Your task to perform on an android device: Search for sushi restaurants on Maps Image 0: 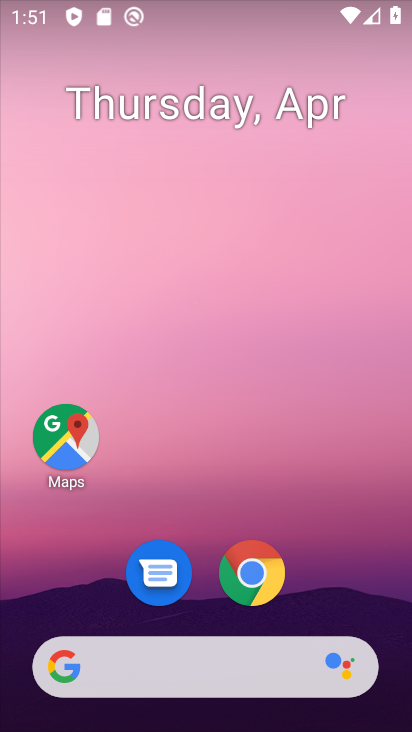
Step 0: drag from (325, 608) to (234, 8)
Your task to perform on an android device: Search for sushi restaurants on Maps Image 1: 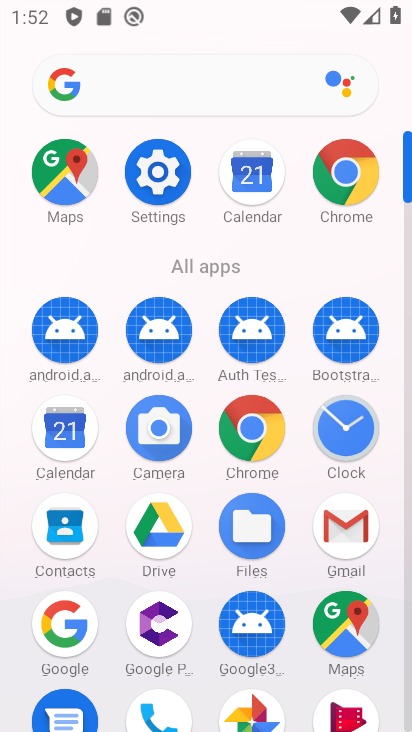
Step 1: click (354, 634)
Your task to perform on an android device: Search for sushi restaurants on Maps Image 2: 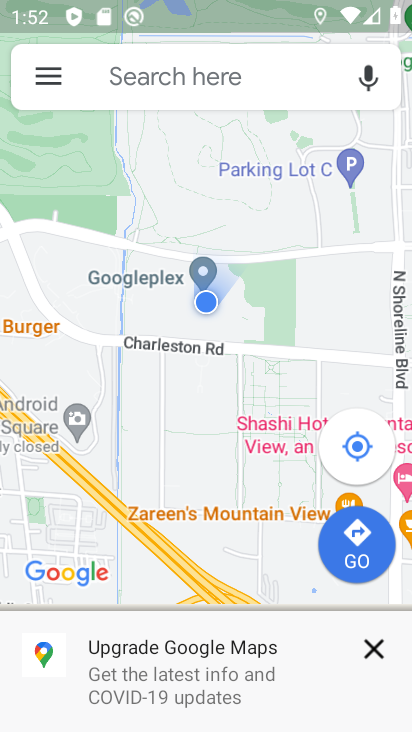
Step 2: click (156, 71)
Your task to perform on an android device: Search for sushi restaurants on Maps Image 3: 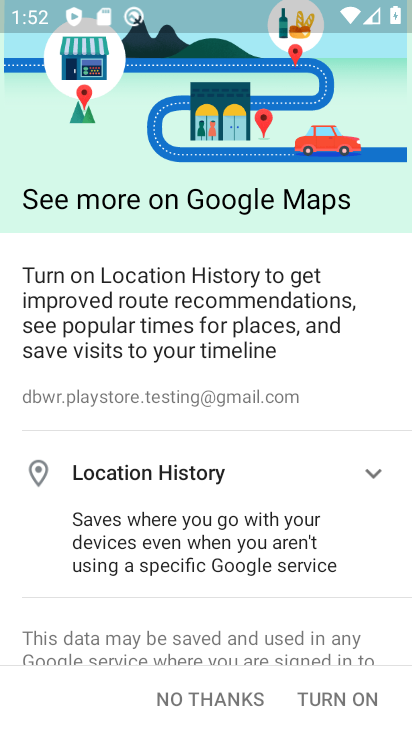
Step 3: click (227, 707)
Your task to perform on an android device: Search for sushi restaurants on Maps Image 4: 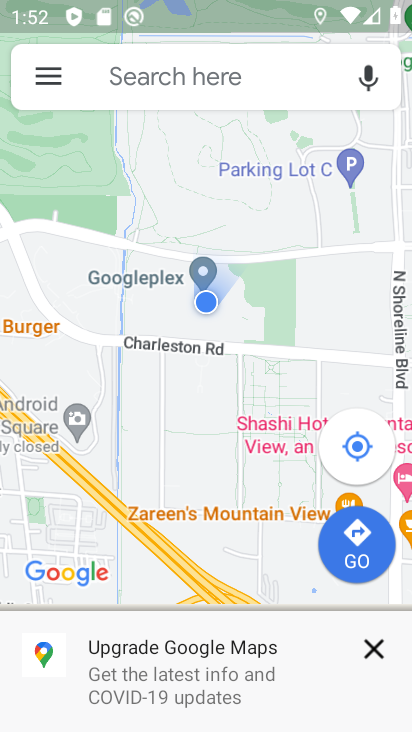
Step 4: click (159, 82)
Your task to perform on an android device: Search for sushi restaurants on Maps Image 5: 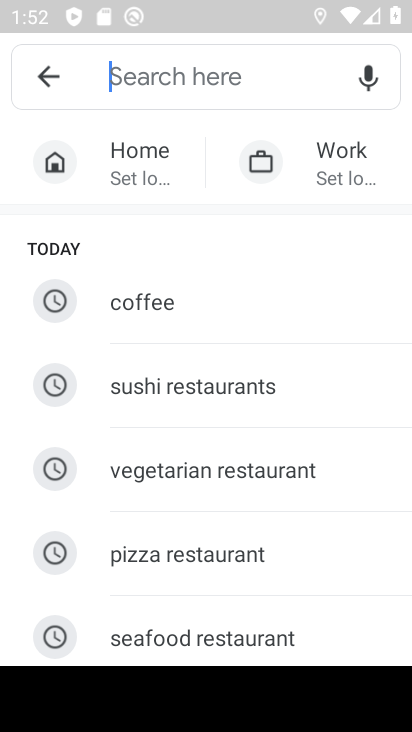
Step 5: click (230, 407)
Your task to perform on an android device: Search for sushi restaurants on Maps Image 6: 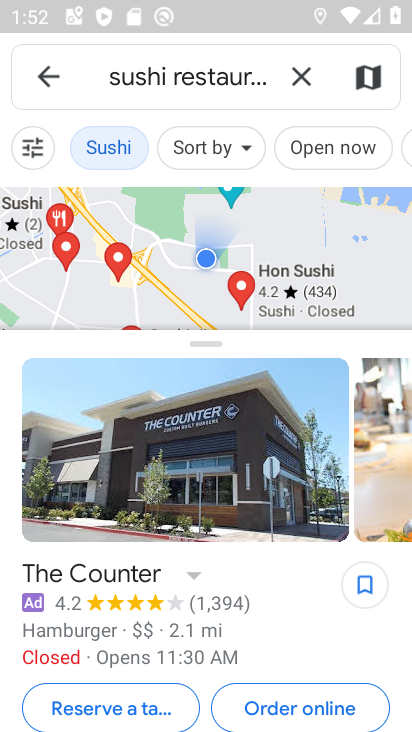
Step 6: task complete